Your task to perform on an android device: Go to CNN.com Image 0: 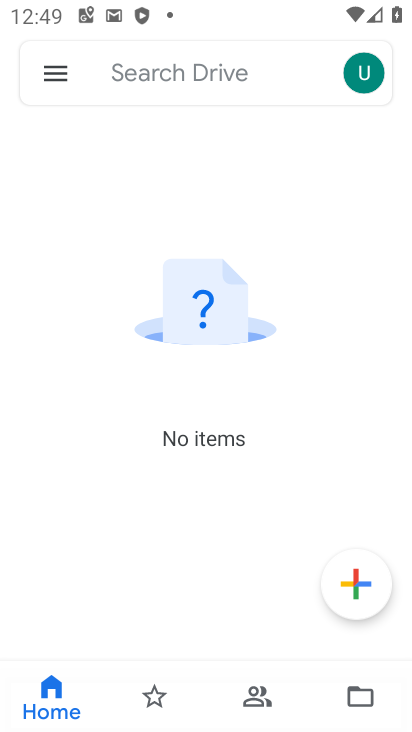
Step 0: press home button
Your task to perform on an android device: Go to CNN.com Image 1: 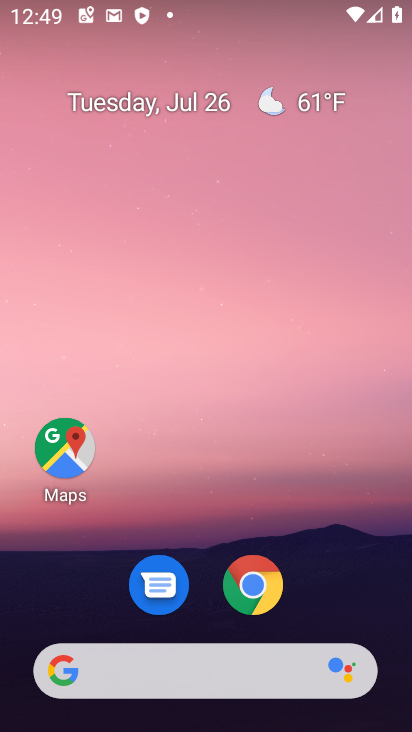
Step 1: click (252, 588)
Your task to perform on an android device: Go to CNN.com Image 2: 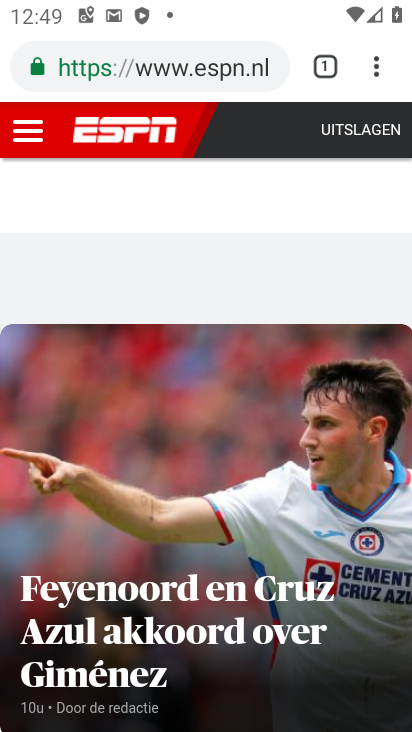
Step 2: drag from (365, 55) to (219, 145)
Your task to perform on an android device: Go to CNN.com Image 3: 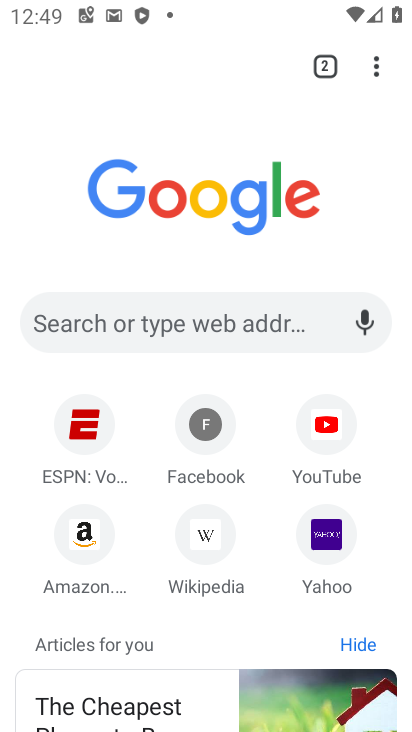
Step 3: click (121, 318)
Your task to perform on an android device: Go to CNN.com Image 4: 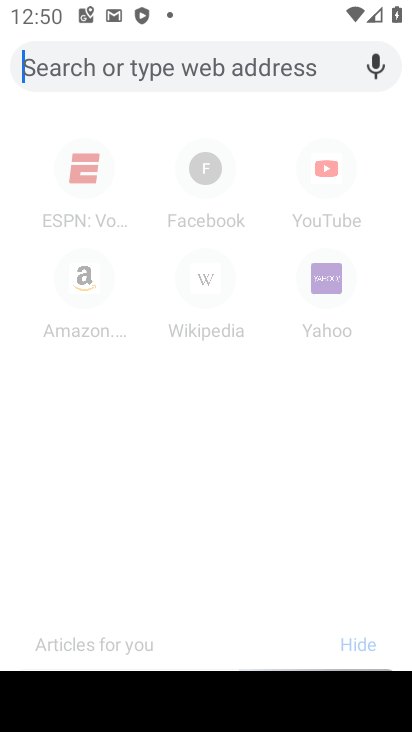
Step 4: type "cnn.com"
Your task to perform on an android device: Go to CNN.com Image 5: 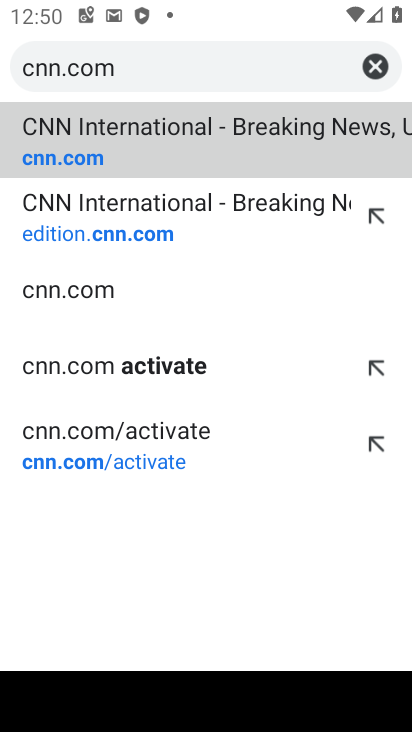
Step 5: click (155, 151)
Your task to perform on an android device: Go to CNN.com Image 6: 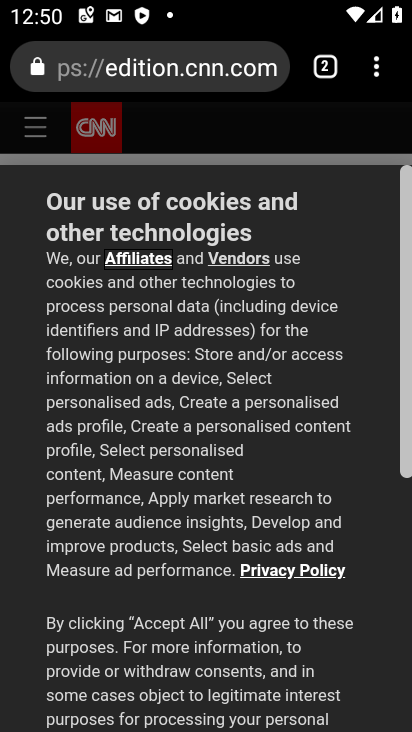
Step 6: drag from (190, 642) to (322, 147)
Your task to perform on an android device: Go to CNN.com Image 7: 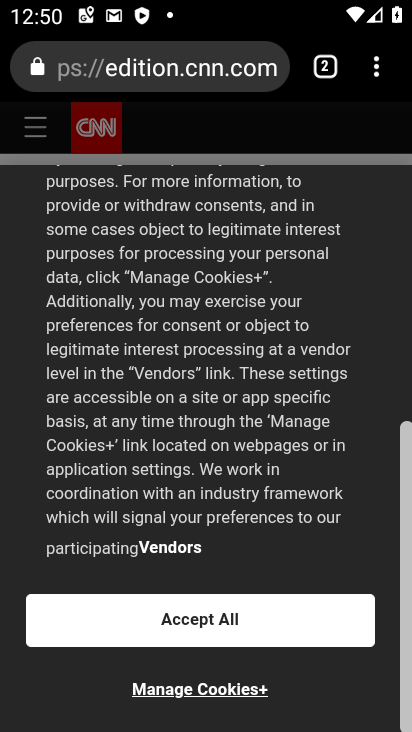
Step 7: click (203, 618)
Your task to perform on an android device: Go to CNN.com Image 8: 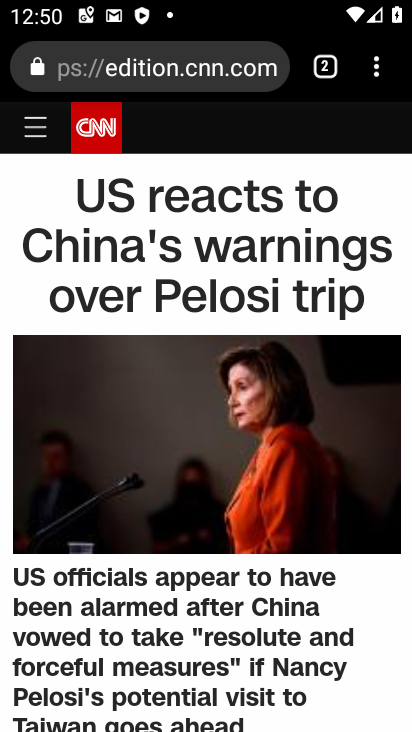
Step 8: task complete